Your task to perform on an android device: turn off priority inbox in the gmail app Image 0: 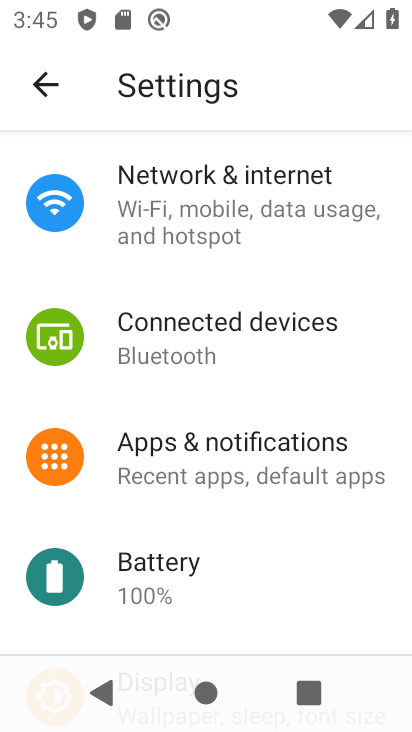
Step 0: press home button
Your task to perform on an android device: turn off priority inbox in the gmail app Image 1: 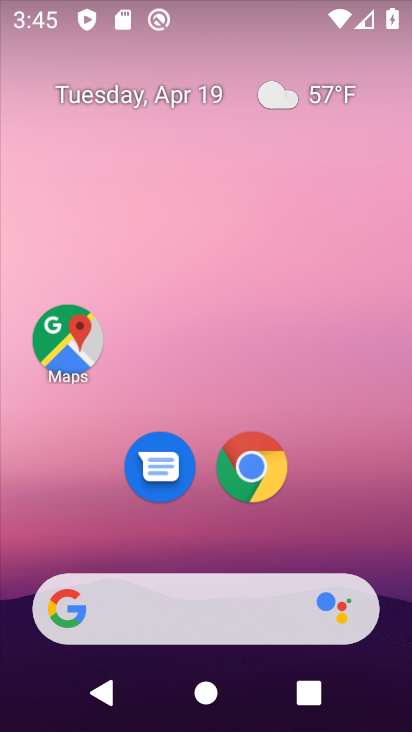
Step 1: drag from (173, 527) to (226, 103)
Your task to perform on an android device: turn off priority inbox in the gmail app Image 2: 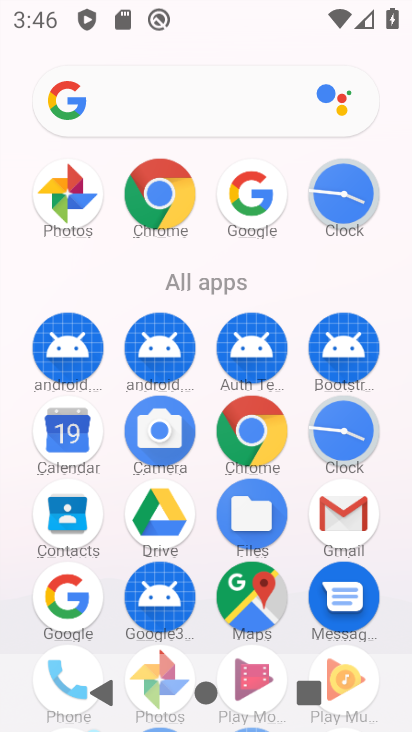
Step 2: click (355, 524)
Your task to perform on an android device: turn off priority inbox in the gmail app Image 3: 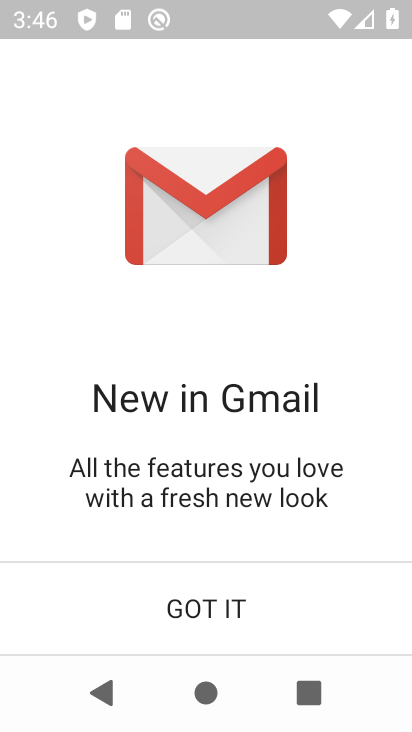
Step 3: click (231, 616)
Your task to perform on an android device: turn off priority inbox in the gmail app Image 4: 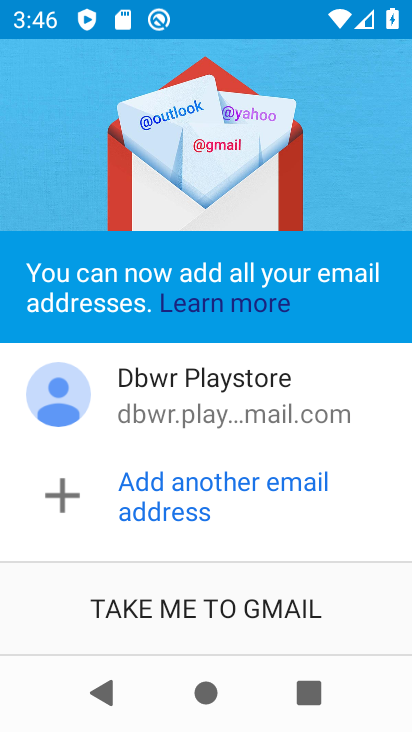
Step 4: click (228, 619)
Your task to perform on an android device: turn off priority inbox in the gmail app Image 5: 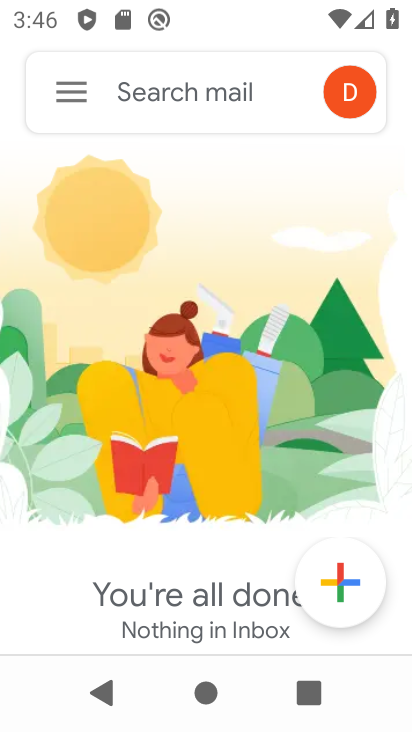
Step 5: click (90, 111)
Your task to perform on an android device: turn off priority inbox in the gmail app Image 6: 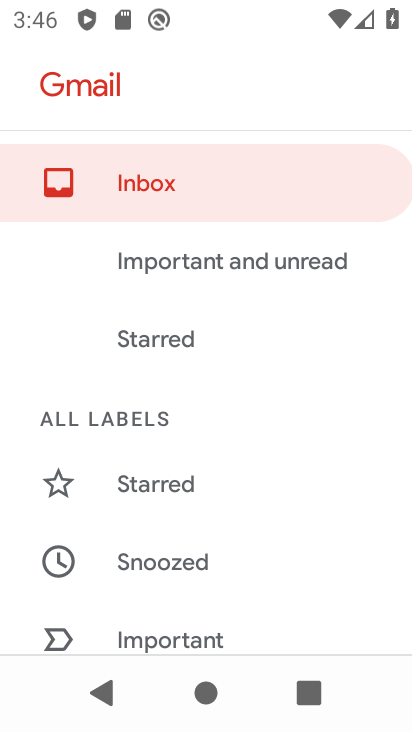
Step 6: drag from (189, 564) to (202, 265)
Your task to perform on an android device: turn off priority inbox in the gmail app Image 7: 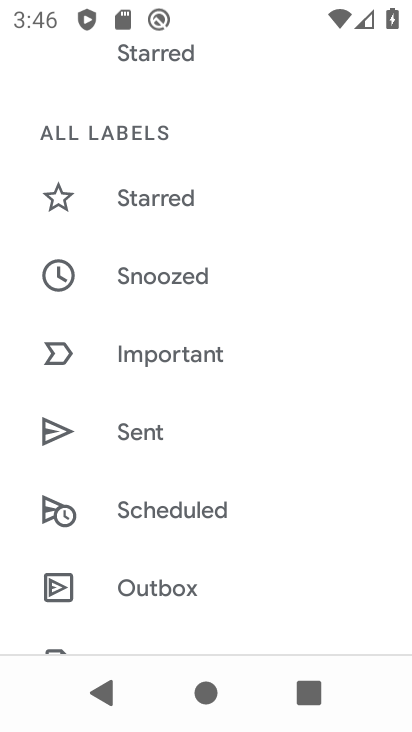
Step 7: drag from (160, 478) to (237, 90)
Your task to perform on an android device: turn off priority inbox in the gmail app Image 8: 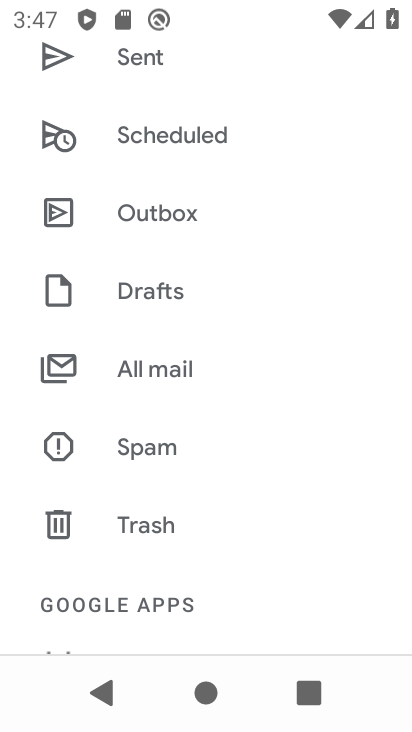
Step 8: drag from (184, 493) to (223, 2)
Your task to perform on an android device: turn off priority inbox in the gmail app Image 9: 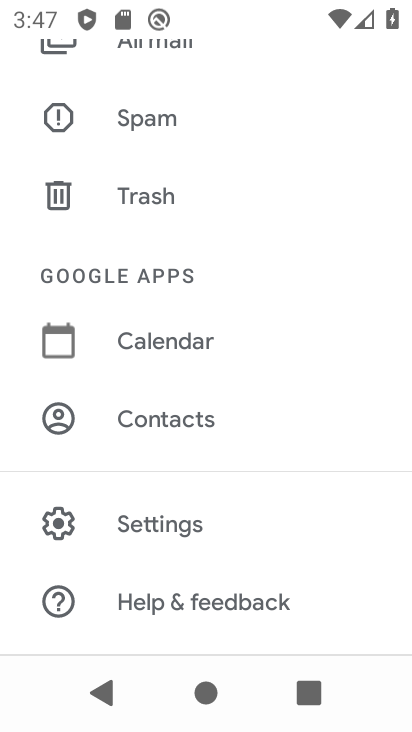
Step 9: click (155, 491)
Your task to perform on an android device: turn off priority inbox in the gmail app Image 10: 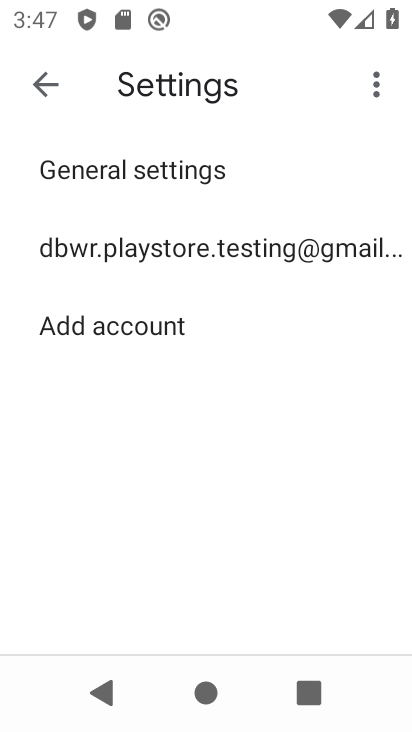
Step 10: click (174, 238)
Your task to perform on an android device: turn off priority inbox in the gmail app Image 11: 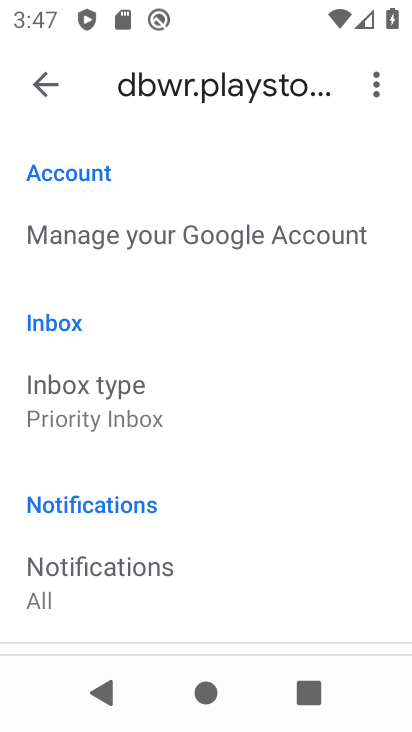
Step 11: click (164, 419)
Your task to perform on an android device: turn off priority inbox in the gmail app Image 12: 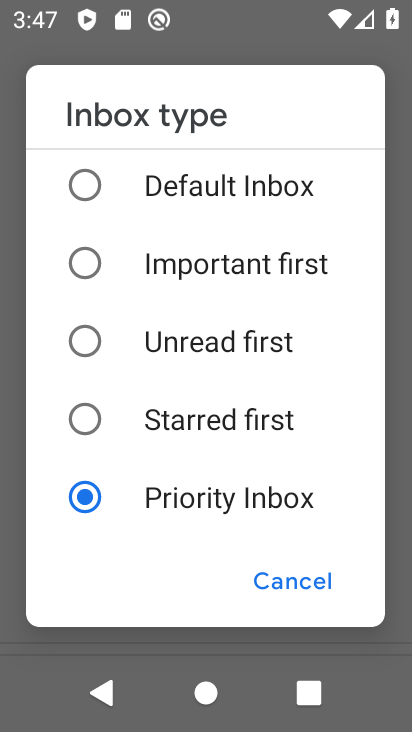
Step 12: click (88, 197)
Your task to perform on an android device: turn off priority inbox in the gmail app Image 13: 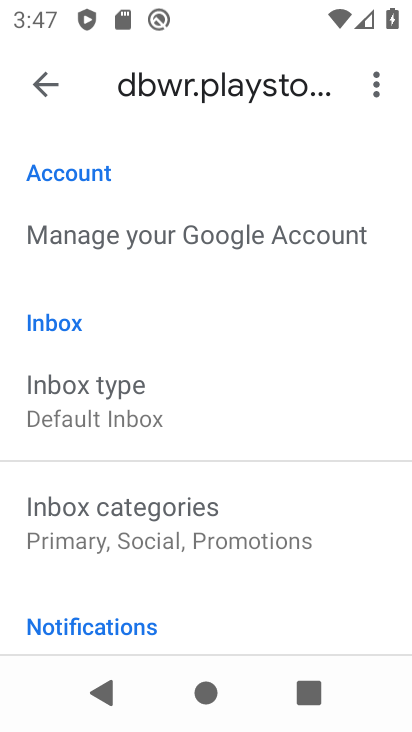
Step 13: task complete